Your task to perform on an android device: turn on bluetooth scan Image 0: 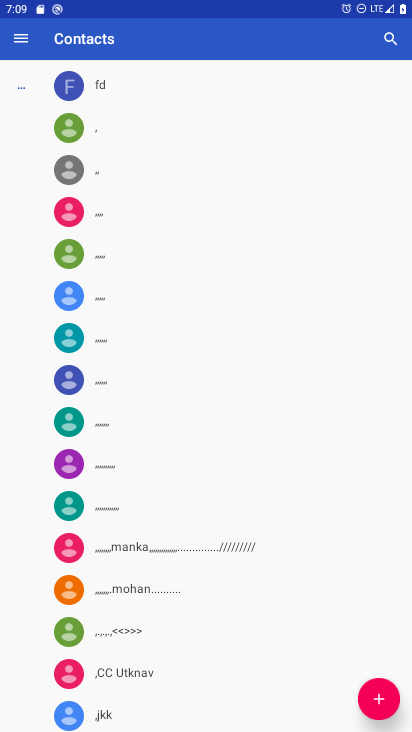
Step 0: press home button
Your task to perform on an android device: turn on bluetooth scan Image 1: 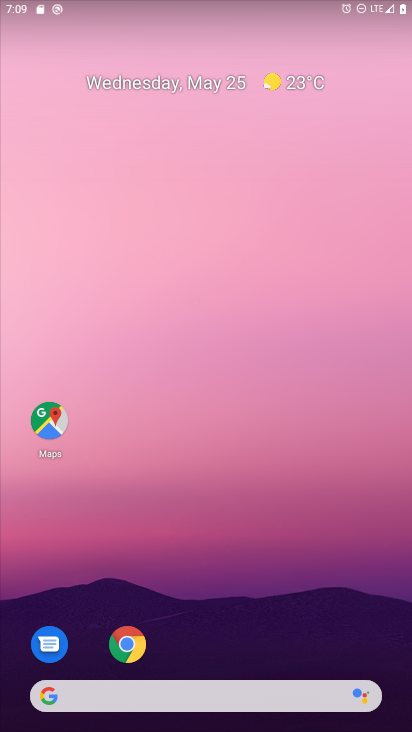
Step 1: drag from (332, 620) to (319, 325)
Your task to perform on an android device: turn on bluetooth scan Image 2: 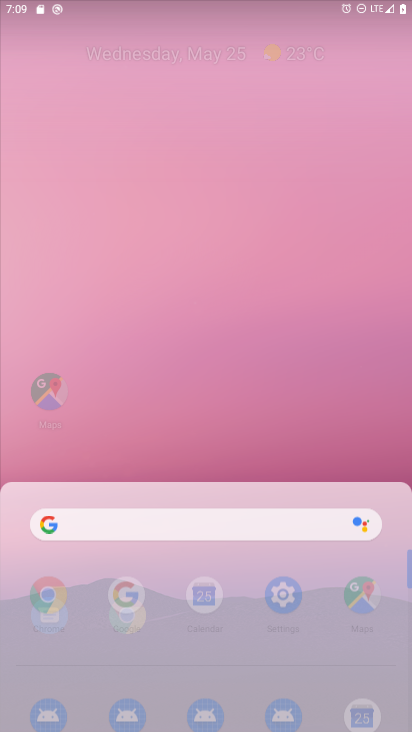
Step 2: drag from (302, 98) to (295, 57)
Your task to perform on an android device: turn on bluetooth scan Image 3: 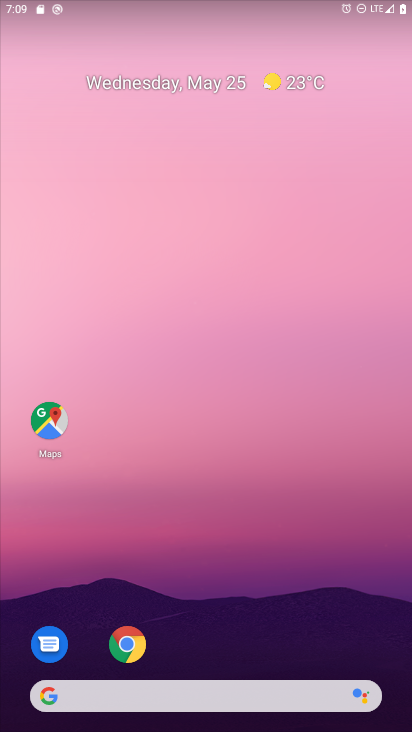
Step 3: drag from (324, 613) to (274, 5)
Your task to perform on an android device: turn on bluetooth scan Image 4: 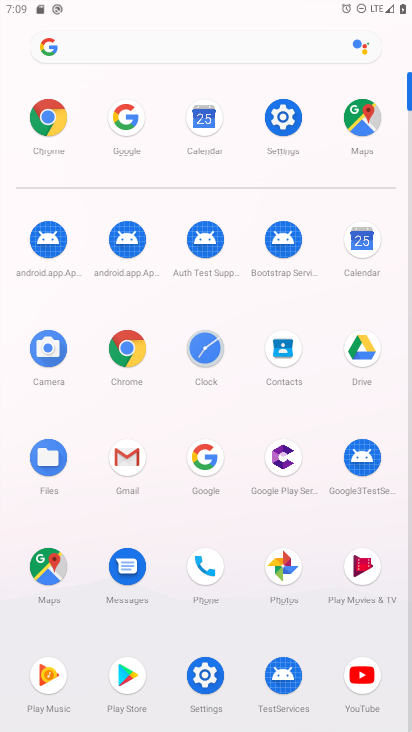
Step 4: click (274, 131)
Your task to perform on an android device: turn on bluetooth scan Image 5: 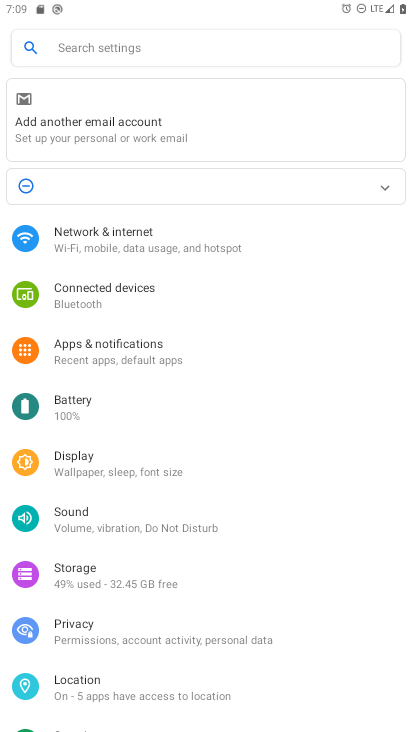
Step 5: click (126, 683)
Your task to perform on an android device: turn on bluetooth scan Image 6: 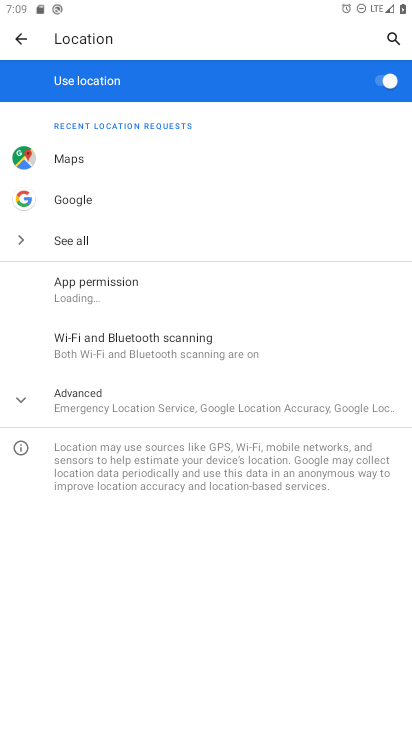
Step 6: click (174, 337)
Your task to perform on an android device: turn on bluetooth scan Image 7: 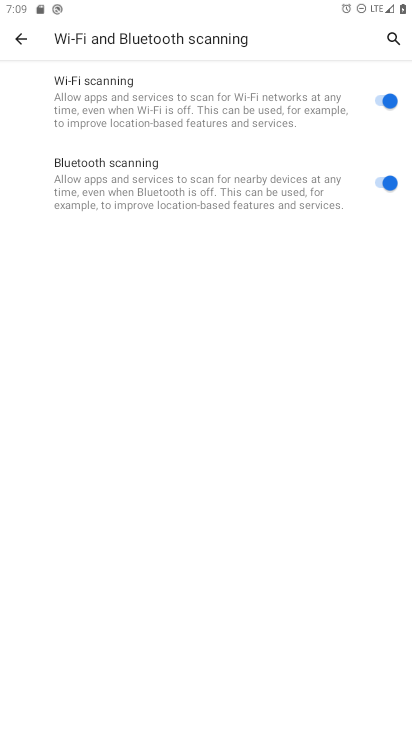
Step 7: task complete